Your task to perform on an android device: Open Google Chrome and open the bookmarks view Image 0: 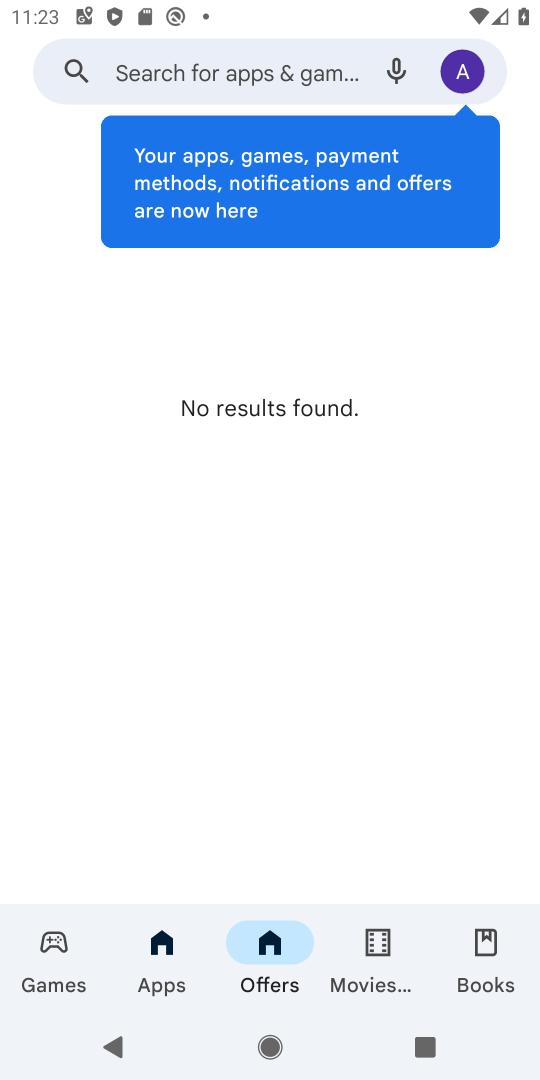
Step 0: press home button
Your task to perform on an android device: Open Google Chrome and open the bookmarks view Image 1: 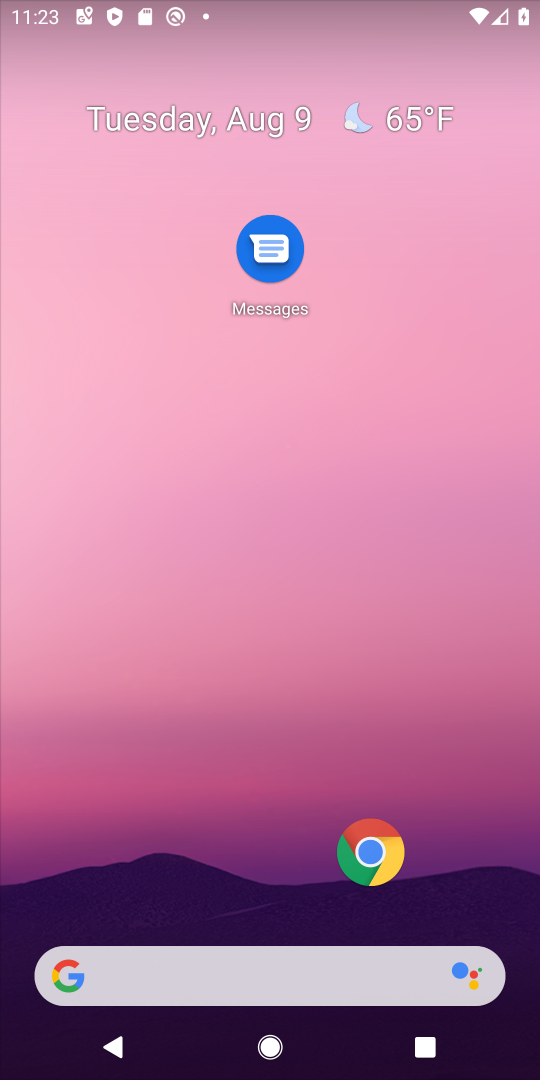
Step 1: click (379, 834)
Your task to perform on an android device: Open Google Chrome and open the bookmarks view Image 2: 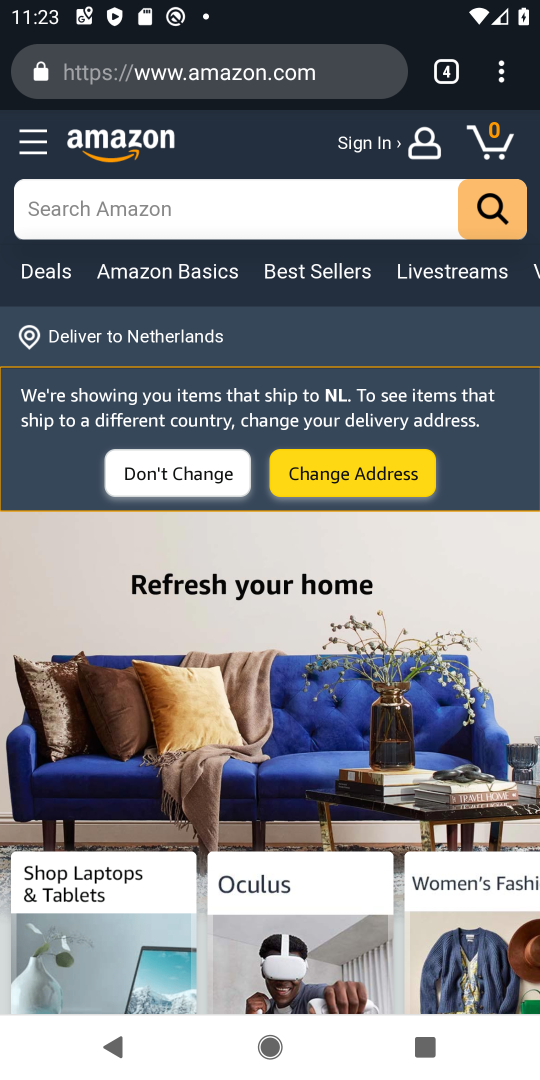
Step 2: click (515, 57)
Your task to perform on an android device: Open Google Chrome and open the bookmarks view Image 3: 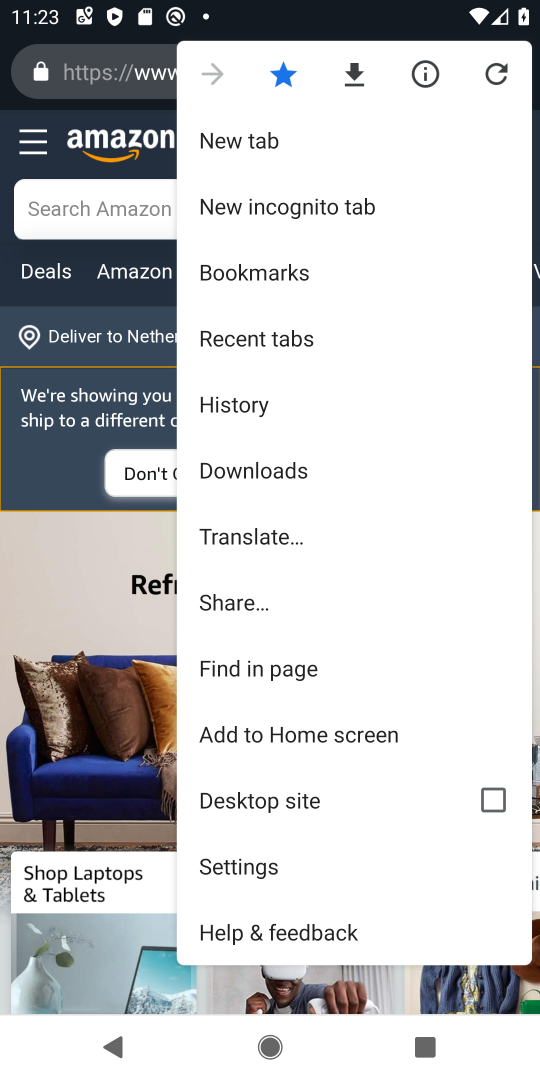
Step 3: click (346, 301)
Your task to perform on an android device: Open Google Chrome and open the bookmarks view Image 4: 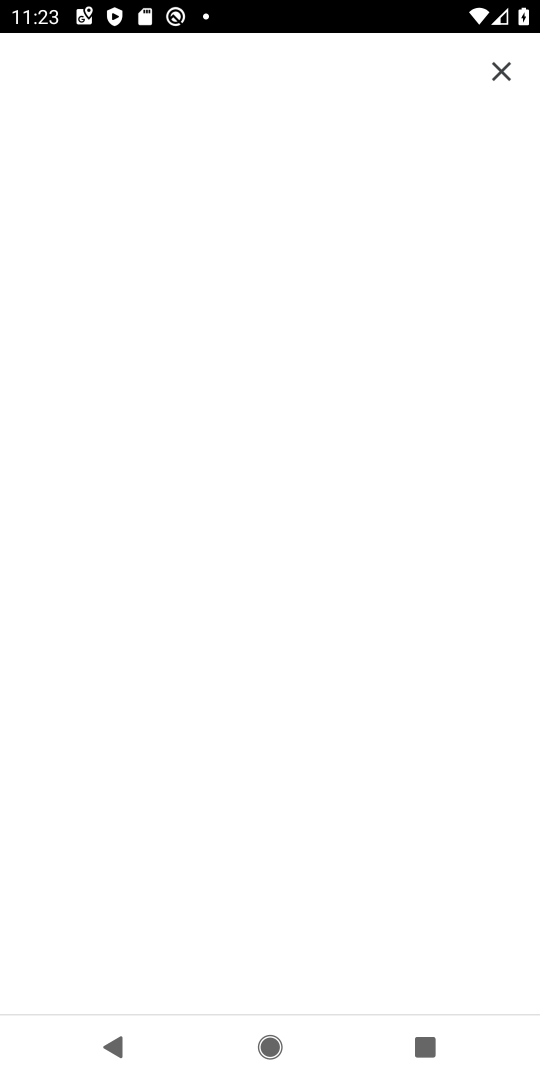
Step 4: click (341, 305)
Your task to perform on an android device: Open Google Chrome and open the bookmarks view Image 5: 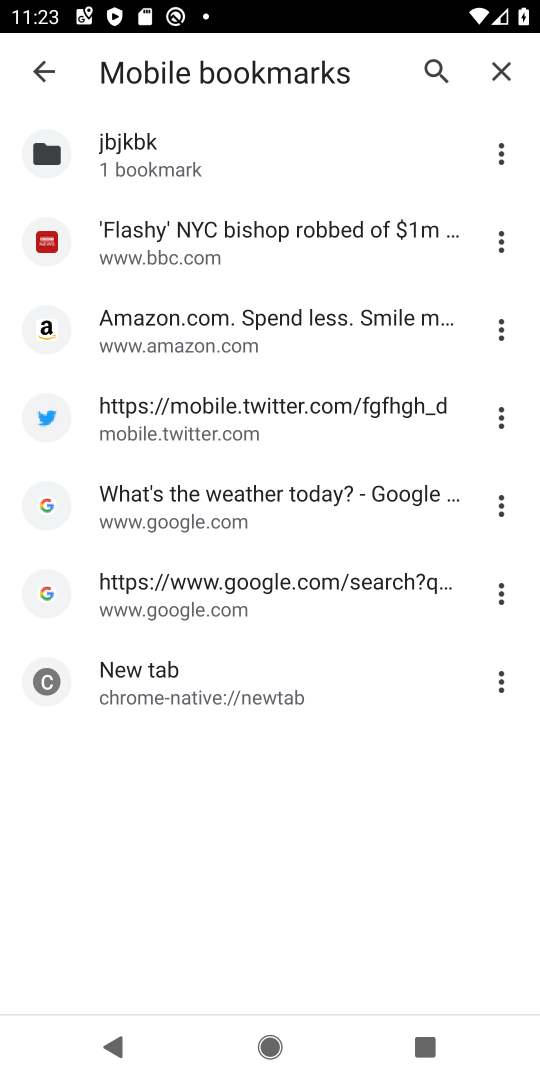
Step 5: click (341, 305)
Your task to perform on an android device: Open Google Chrome and open the bookmarks view Image 6: 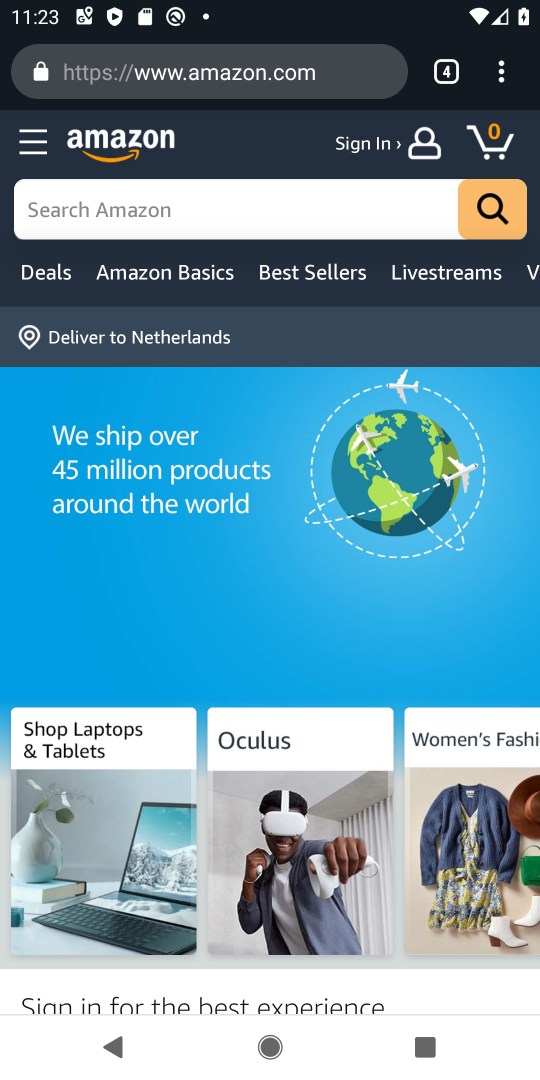
Step 6: task complete